Your task to perform on an android device: Open the map Image 0: 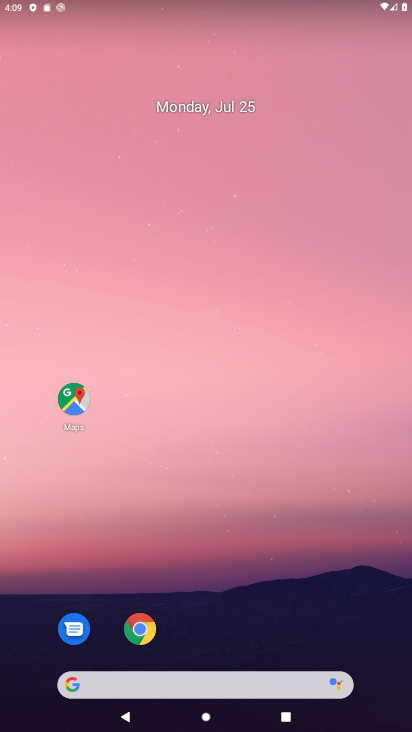
Step 0: drag from (246, 501) to (249, 17)
Your task to perform on an android device: Open the map Image 1: 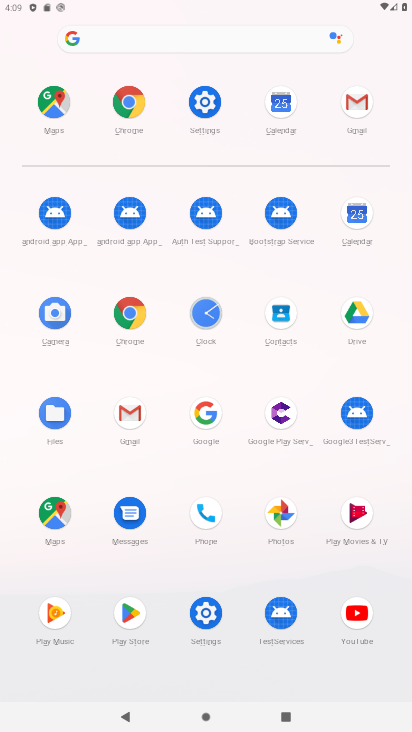
Step 1: click (60, 521)
Your task to perform on an android device: Open the map Image 2: 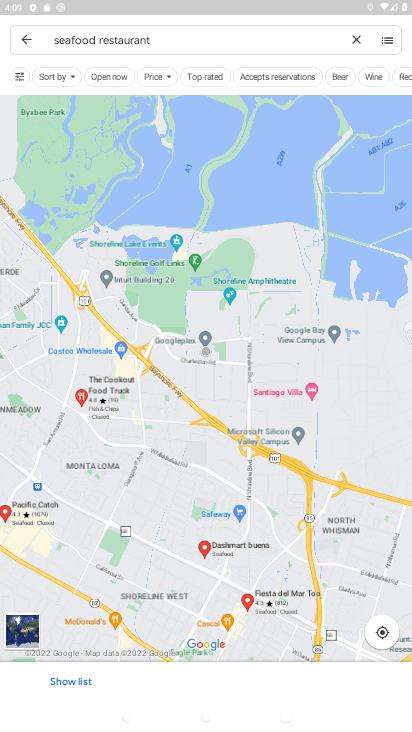
Step 2: task complete